Your task to perform on an android device: open wifi settings Image 0: 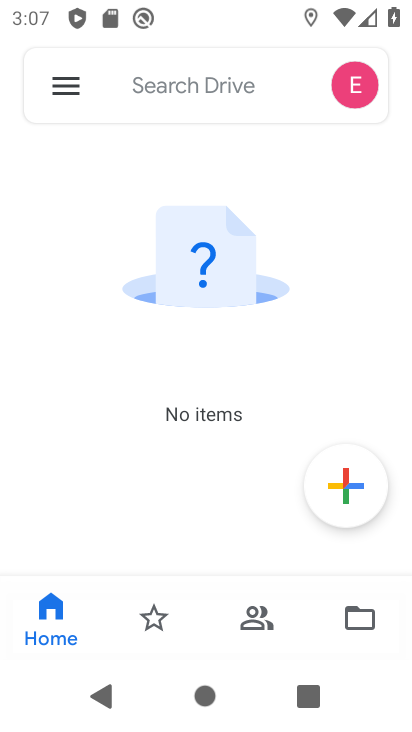
Step 0: press back button
Your task to perform on an android device: open wifi settings Image 1: 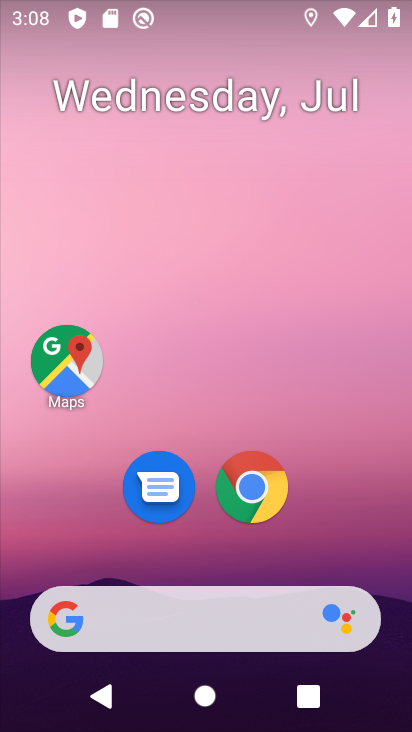
Step 1: drag from (61, 15) to (156, 597)
Your task to perform on an android device: open wifi settings Image 2: 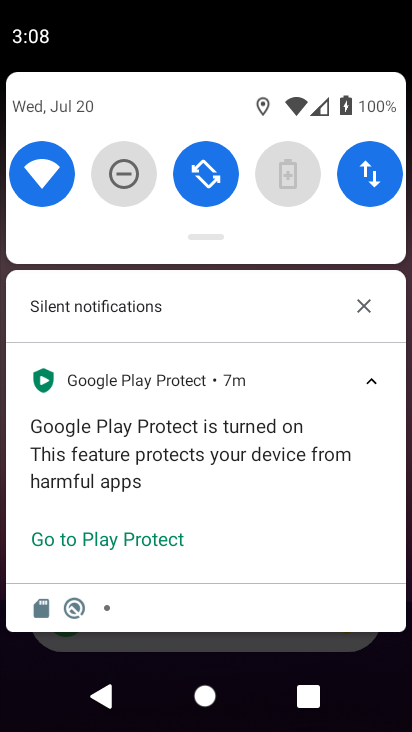
Step 2: click (52, 161)
Your task to perform on an android device: open wifi settings Image 3: 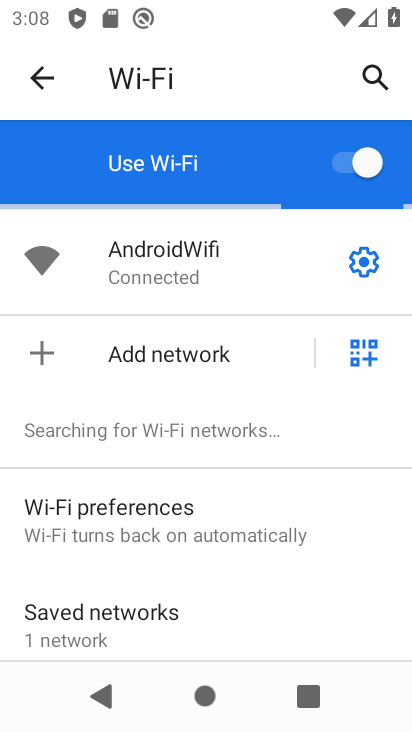
Step 3: task complete